Your task to perform on an android device: Go to wifi settings Image 0: 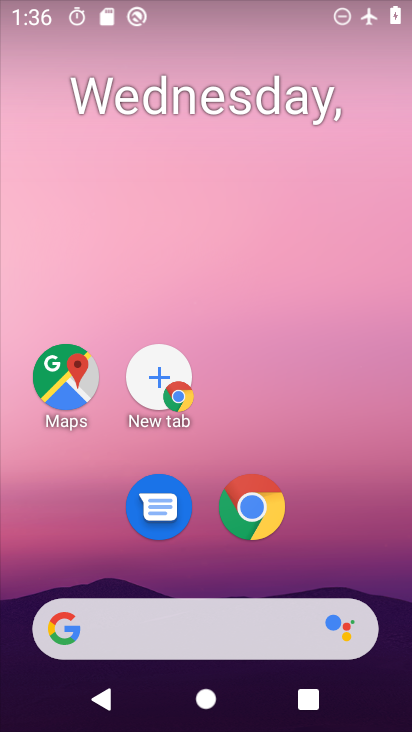
Step 0: drag from (382, 441) to (410, 256)
Your task to perform on an android device: Go to wifi settings Image 1: 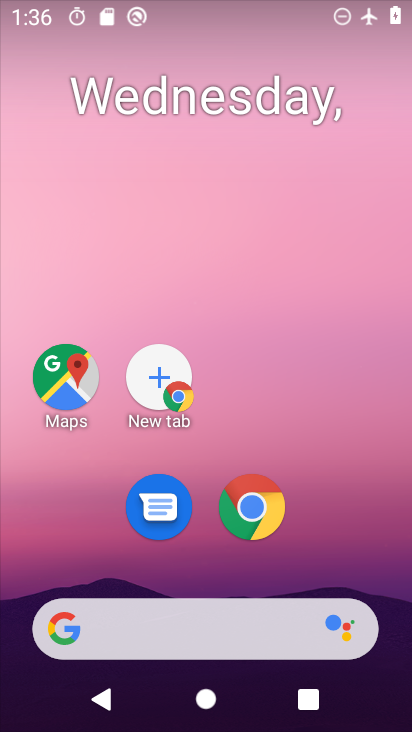
Step 1: drag from (358, 490) to (333, 18)
Your task to perform on an android device: Go to wifi settings Image 2: 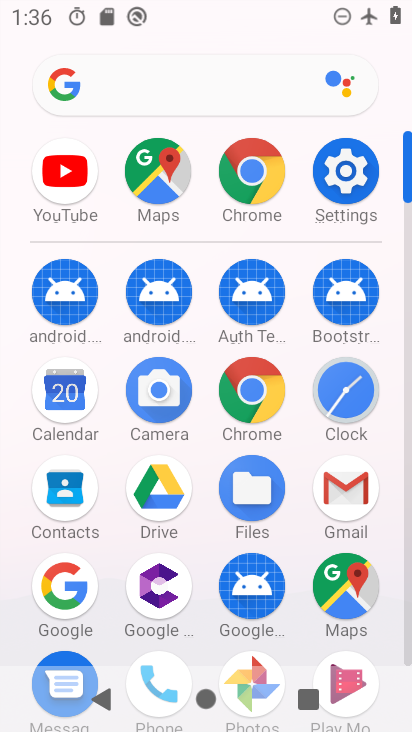
Step 2: click (335, 172)
Your task to perform on an android device: Go to wifi settings Image 3: 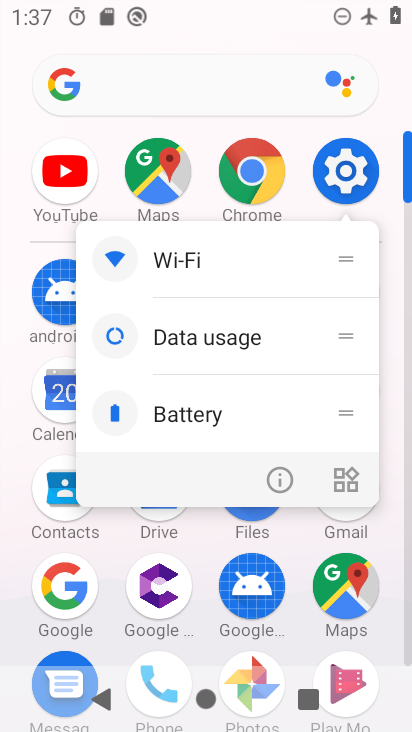
Step 3: click (363, 172)
Your task to perform on an android device: Go to wifi settings Image 4: 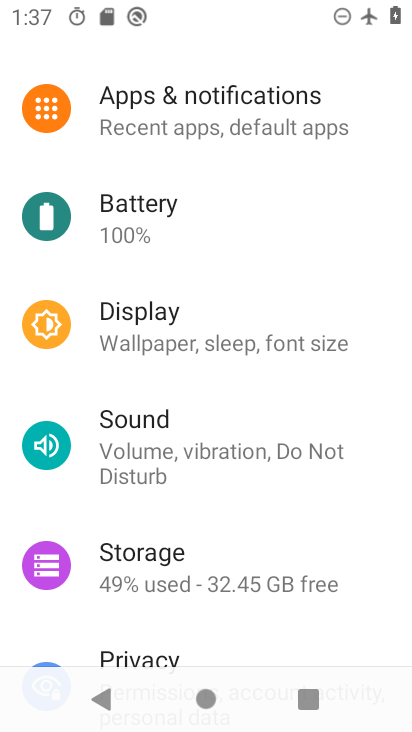
Step 4: drag from (246, 249) to (178, 627)
Your task to perform on an android device: Go to wifi settings Image 5: 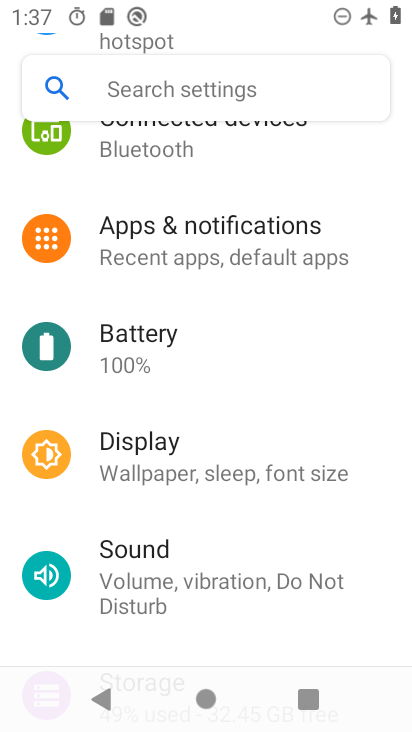
Step 5: drag from (267, 160) to (239, 679)
Your task to perform on an android device: Go to wifi settings Image 6: 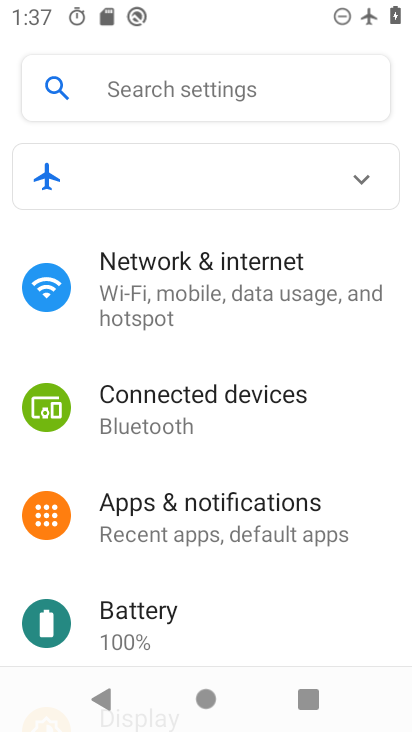
Step 6: drag from (288, 318) to (222, 665)
Your task to perform on an android device: Go to wifi settings Image 7: 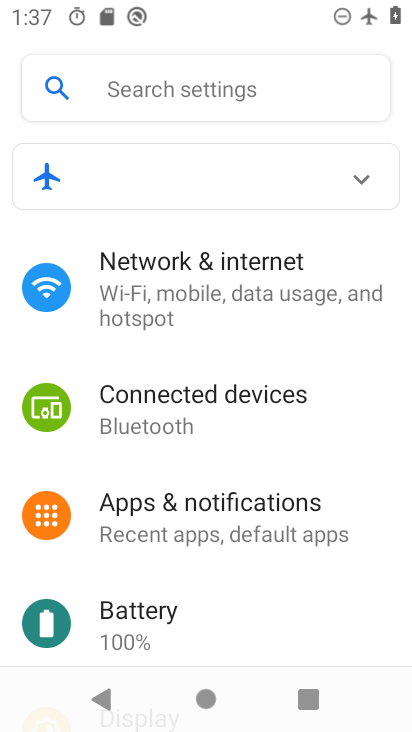
Step 7: click (181, 293)
Your task to perform on an android device: Go to wifi settings Image 8: 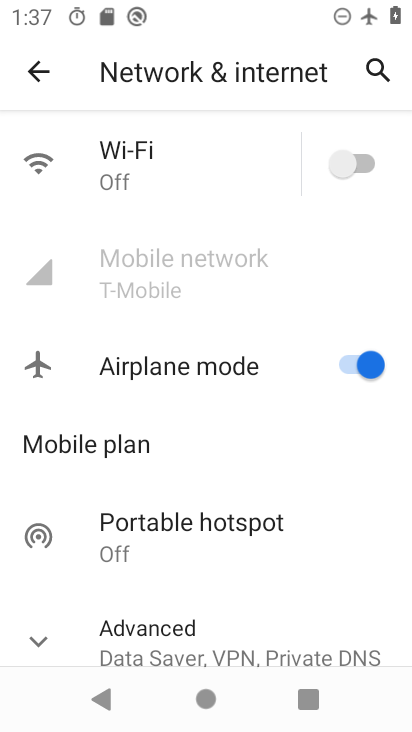
Step 8: click (344, 169)
Your task to perform on an android device: Go to wifi settings Image 9: 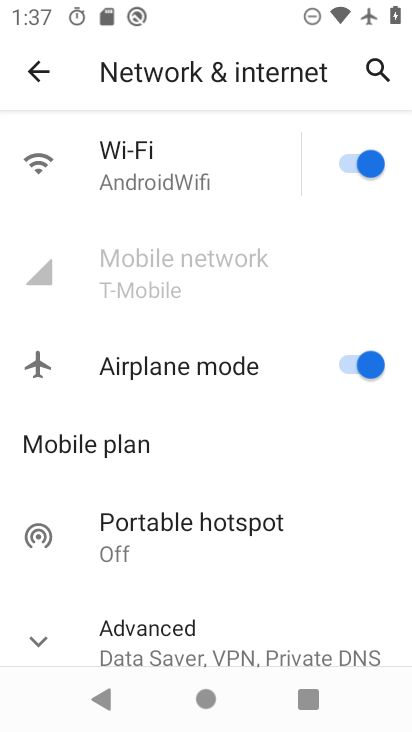
Step 9: task complete